Your task to perform on an android device: turn off data saver in the chrome app Image 0: 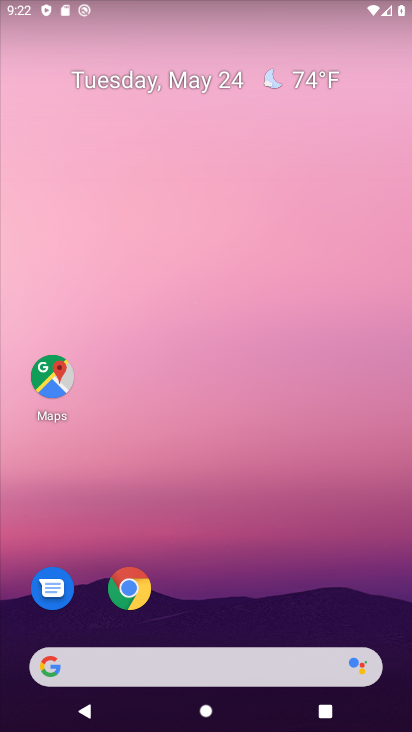
Step 0: click (59, 386)
Your task to perform on an android device: turn off data saver in the chrome app Image 1: 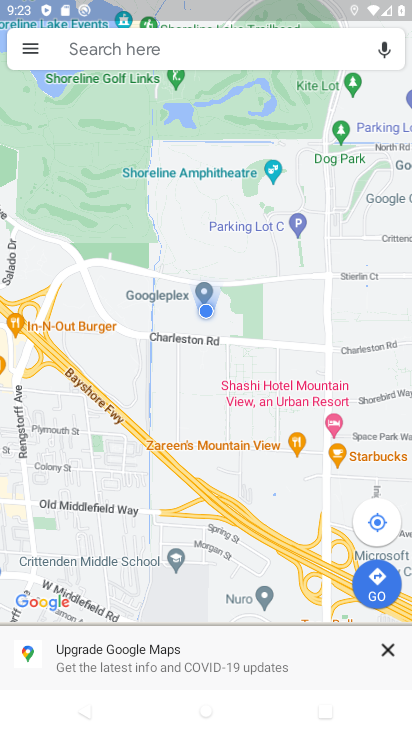
Step 1: drag from (188, 7) to (160, 691)
Your task to perform on an android device: turn off data saver in the chrome app Image 2: 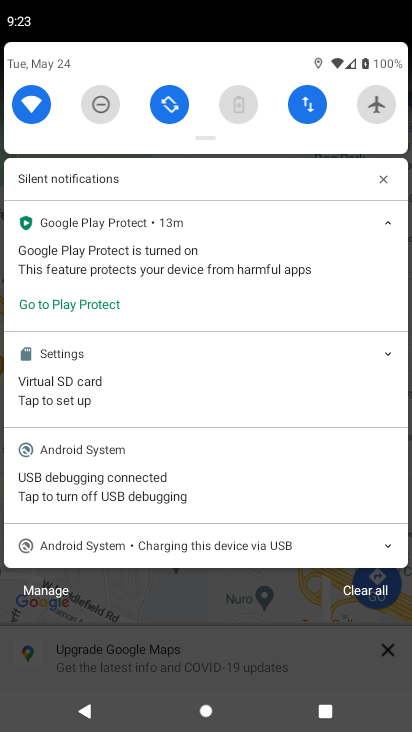
Step 2: press home button
Your task to perform on an android device: turn off data saver in the chrome app Image 3: 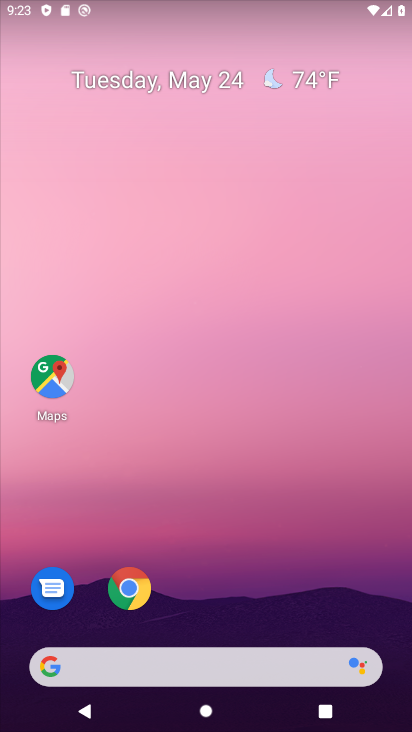
Step 3: drag from (213, 625) to (254, 14)
Your task to perform on an android device: turn off data saver in the chrome app Image 4: 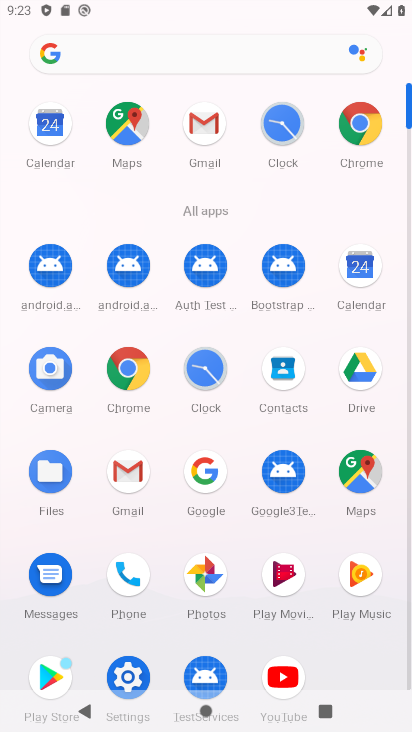
Step 4: click (134, 359)
Your task to perform on an android device: turn off data saver in the chrome app Image 5: 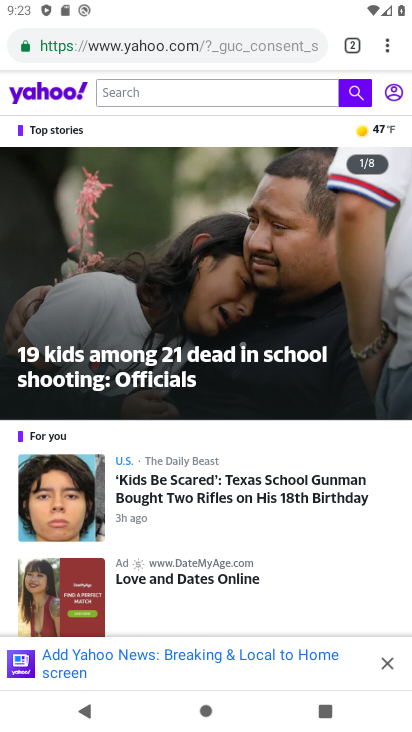
Step 5: click (402, 40)
Your task to perform on an android device: turn off data saver in the chrome app Image 6: 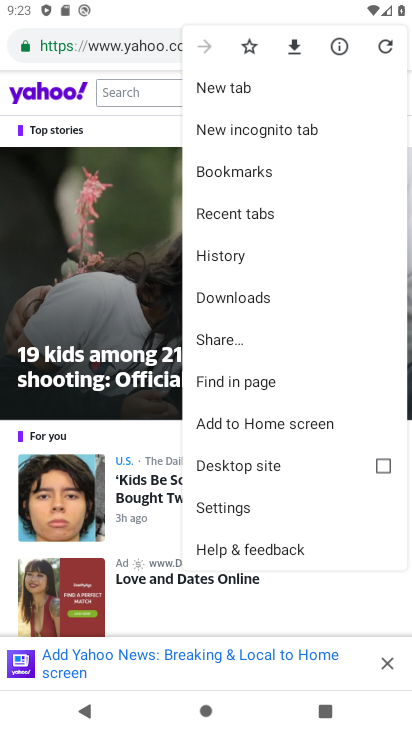
Step 6: click (229, 517)
Your task to perform on an android device: turn off data saver in the chrome app Image 7: 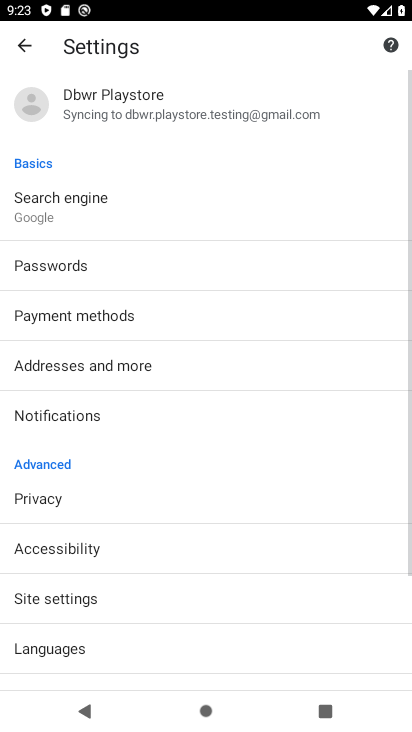
Step 7: drag from (229, 517) to (224, 84)
Your task to perform on an android device: turn off data saver in the chrome app Image 8: 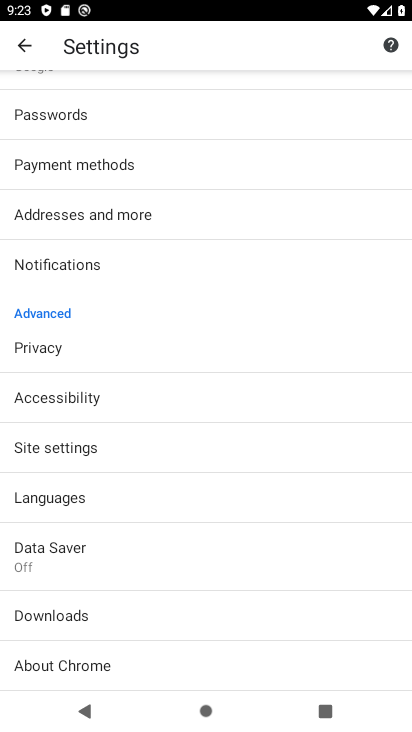
Step 8: click (33, 572)
Your task to perform on an android device: turn off data saver in the chrome app Image 9: 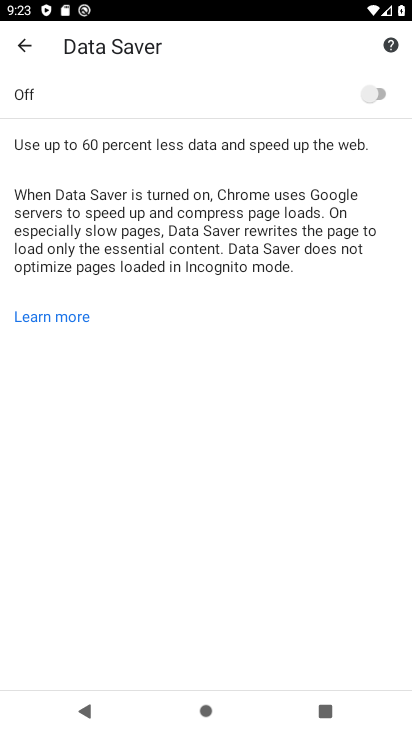
Step 9: task complete